Your task to perform on an android device: Go to Yahoo.com Image 0: 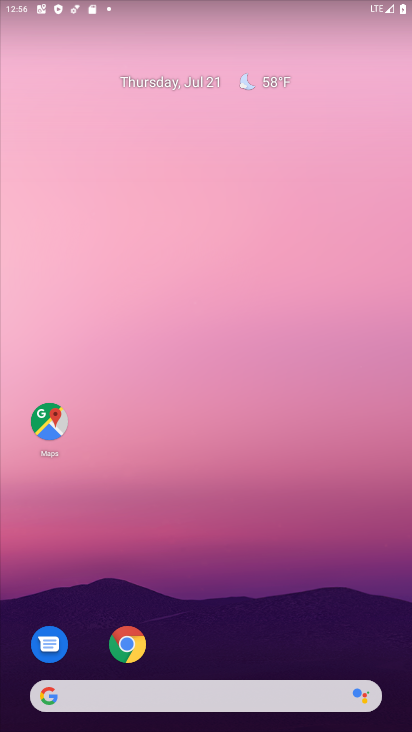
Step 0: drag from (309, 557) to (303, 116)
Your task to perform on an android device: Go to Yahoo.com Image 1: 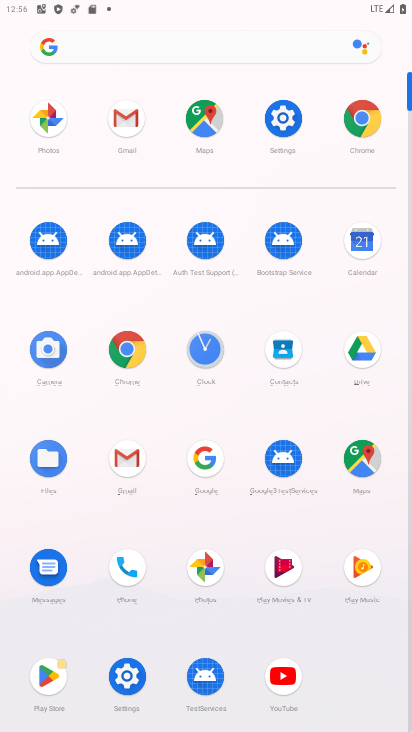
Step 1: click (365, 126)
Your task to perform on an android device: Go to Yahoo.com Image 2: 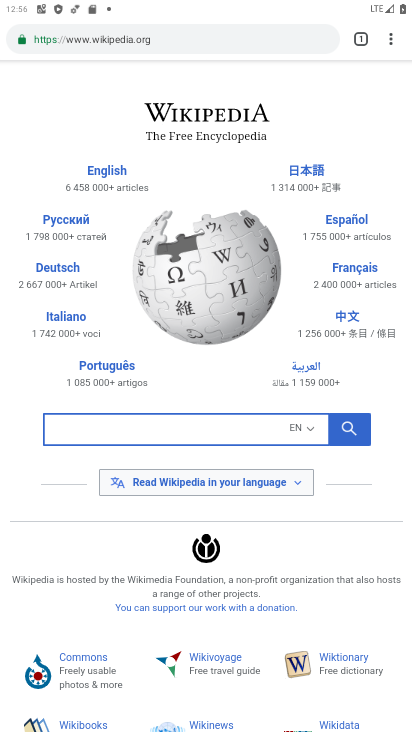
Step 2: click (230, 38)
Your task to perform on an android device: Go to Yahoo.com Image 3: 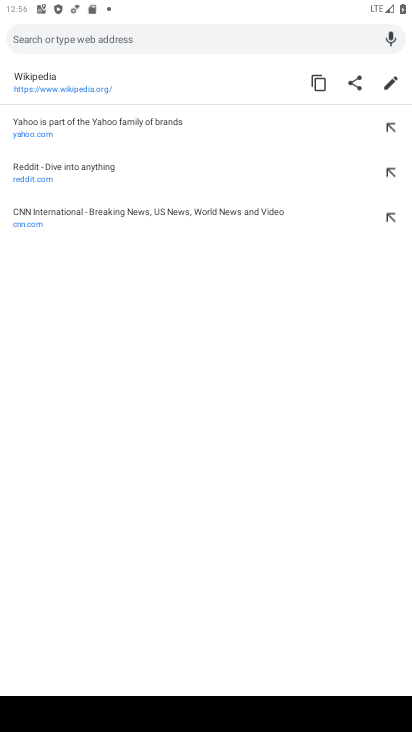
Step 3: type "yahoo.com"
Your task to perform on an android device: Go to Yahoo.com Image 4: 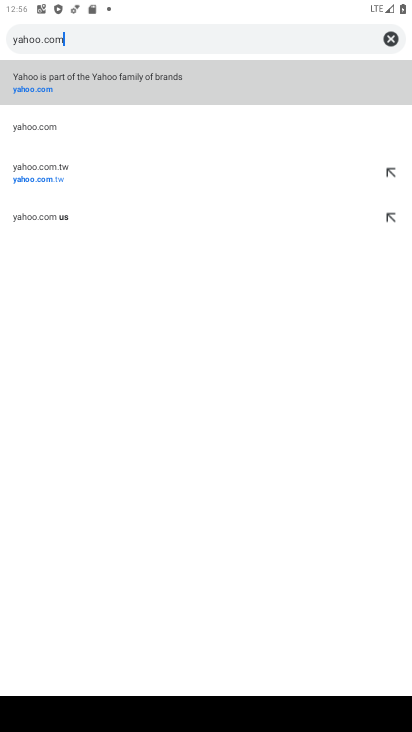
Step 4: click (139, 89)
Your task to perform on an android device: Go to Yahoo.com Image 5: 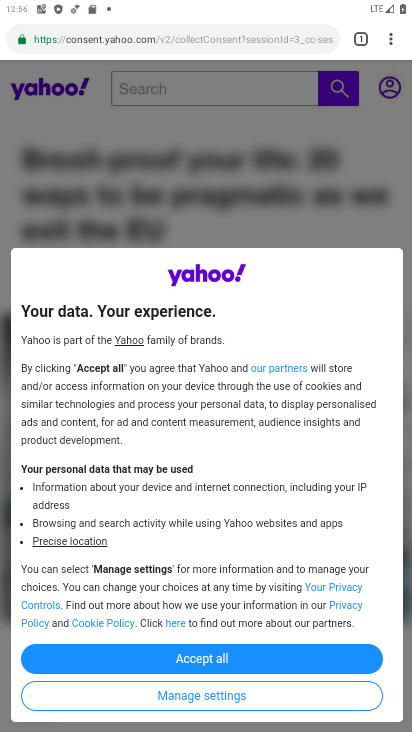
Step 5: task complete